Your task to perform on an android device: change notification settings in the gmail app Image 0: 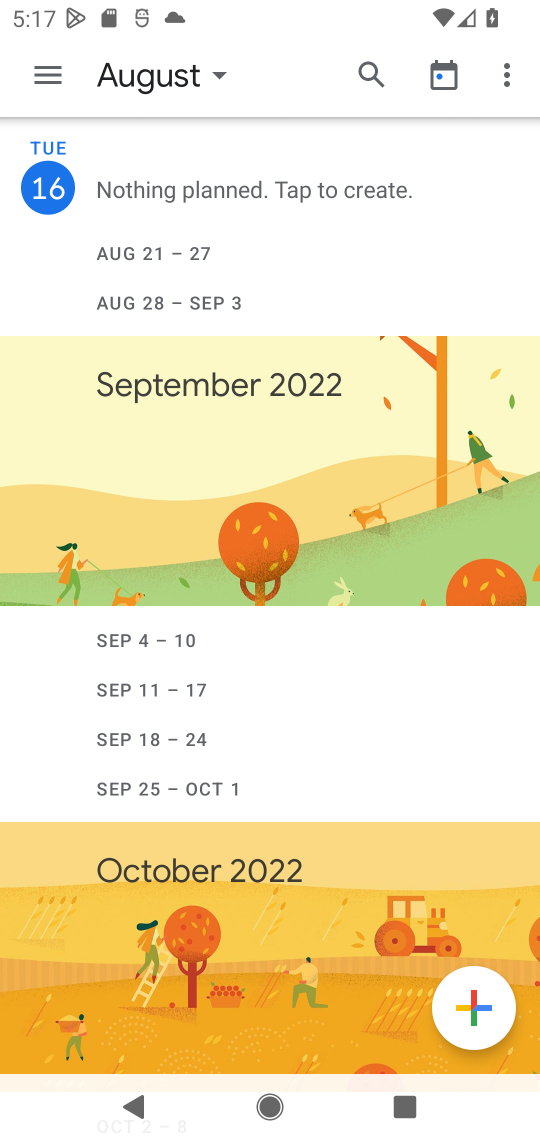
Step 0: press home button
Your task to perform on an android device: change notification settings in the gmail app Image 1: 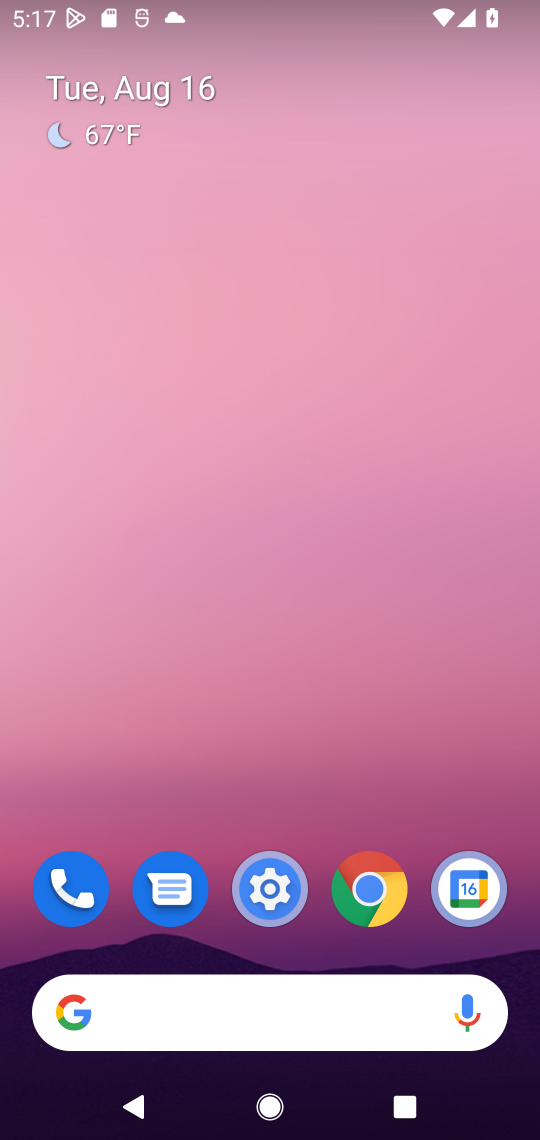
Step 1: drag from (234, 724) to (333, 168)
Your task to perform on an android device: change notification settings in the gmail app Image 2: 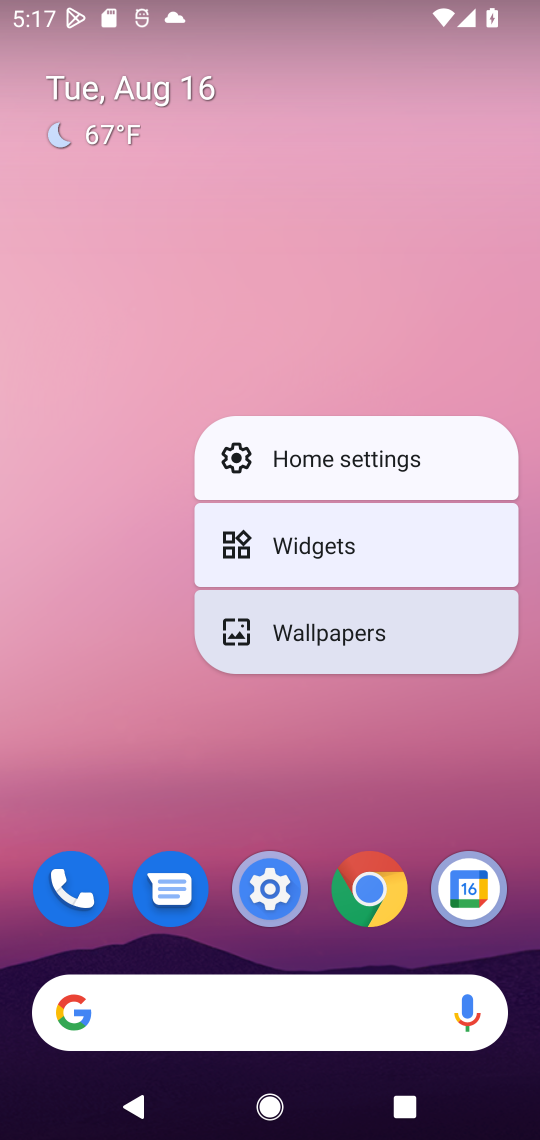
Step 2: click (166, 699)
Your task to perform on an android device: change notification settings in the gmail app Image 3: 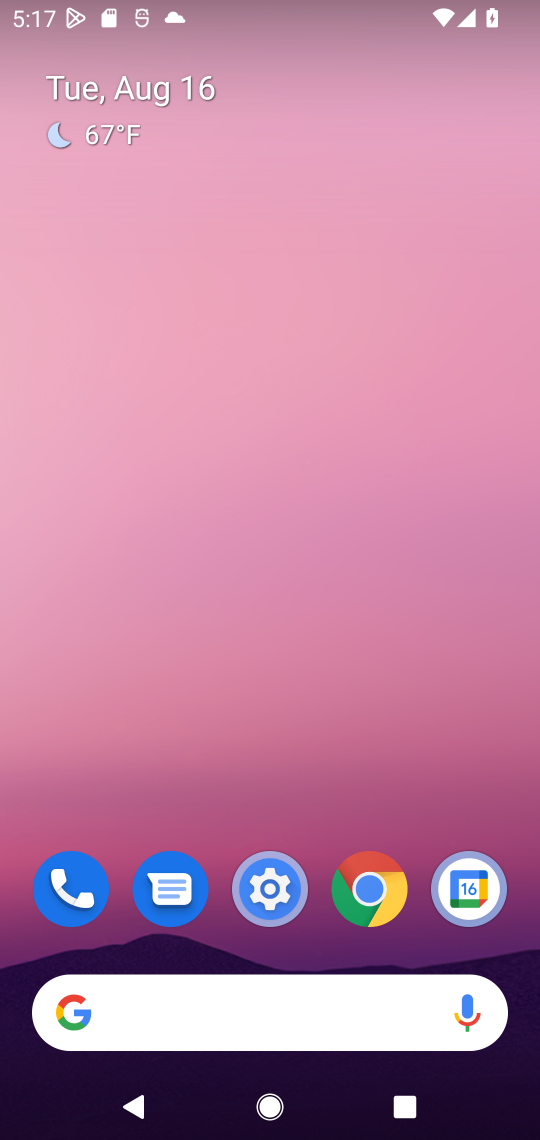
Step 3: click (166, 699)
Your task to perform on an android device: change notification settings in the gmail app Image 4: 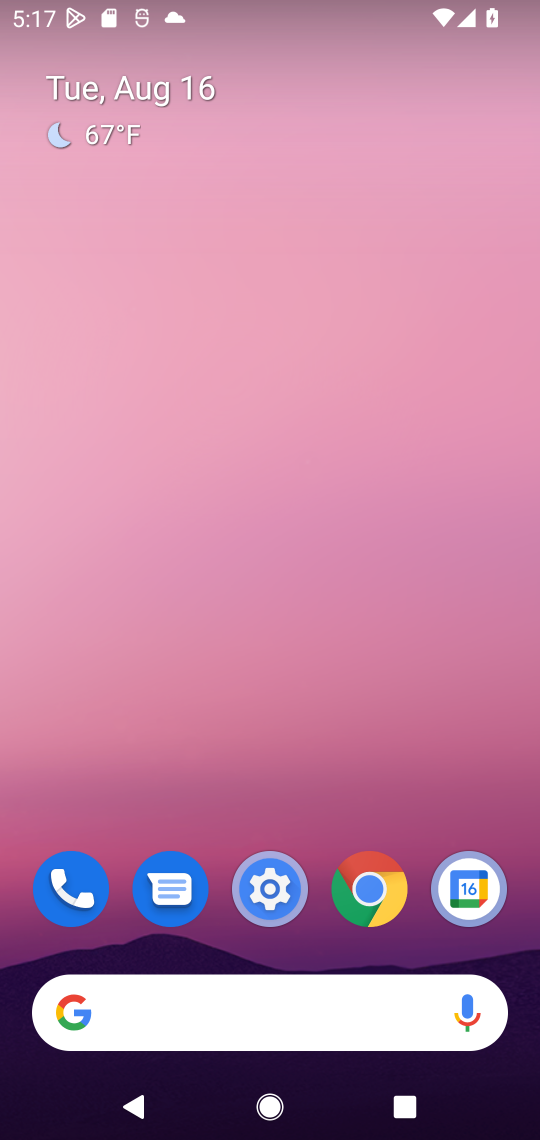
Step 4: drag from (166, 699) to (246, 123)
Your task to perform on an android device: change notification settings in the gmail app Image 5: 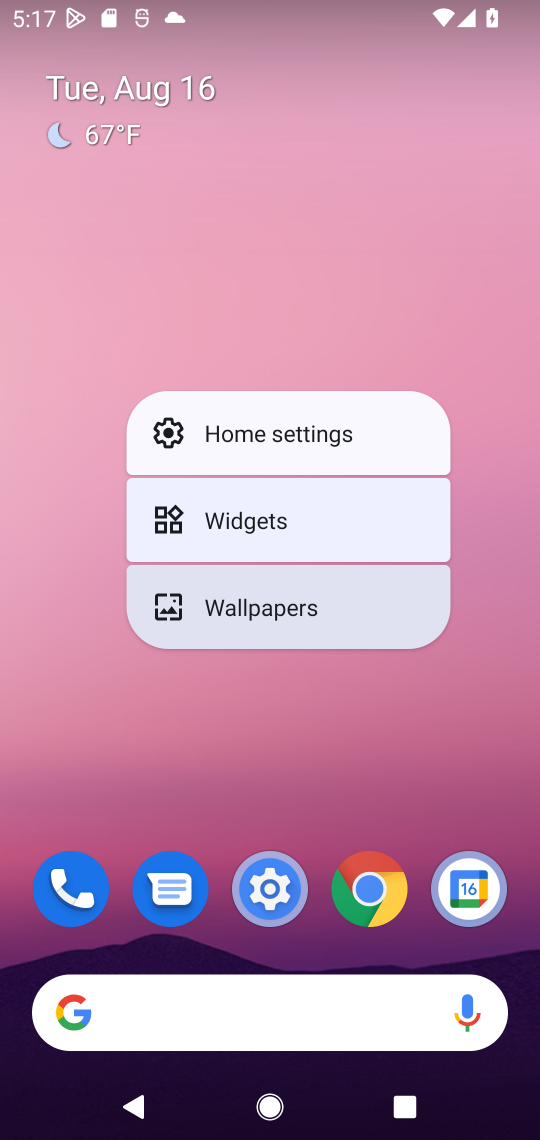
Step 5: click (420, 814)
Your task to perform on an android device: change notification settings in the gmail app Image 6: 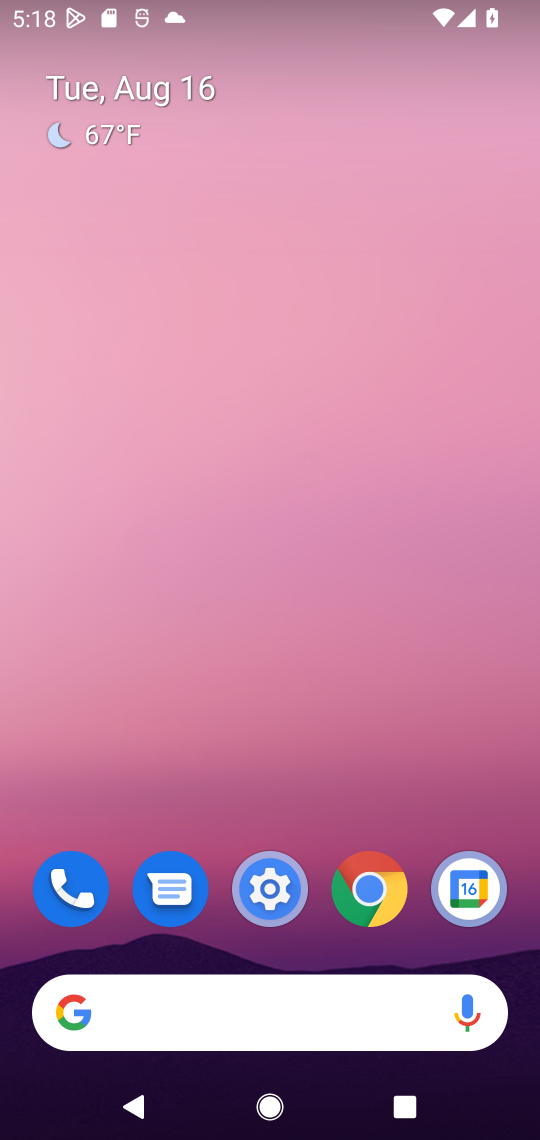
Step 6: task complete